Your task to perform on an android device: Go to display settings Image 0: 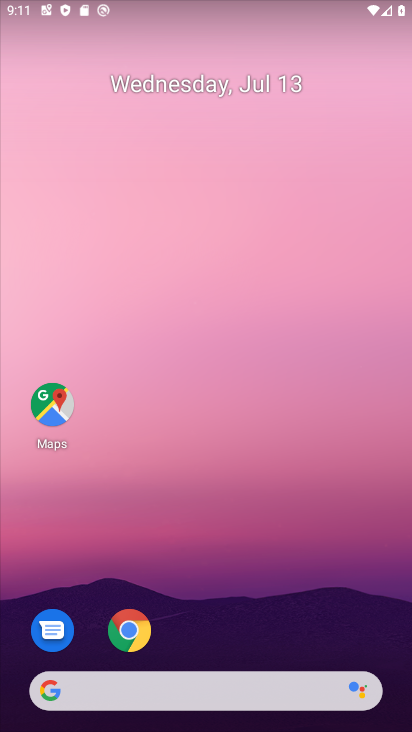
Step 0: drag from (227, 572) to (264, 0)
Your task to perform on an android device: Go to display settings Image 1: 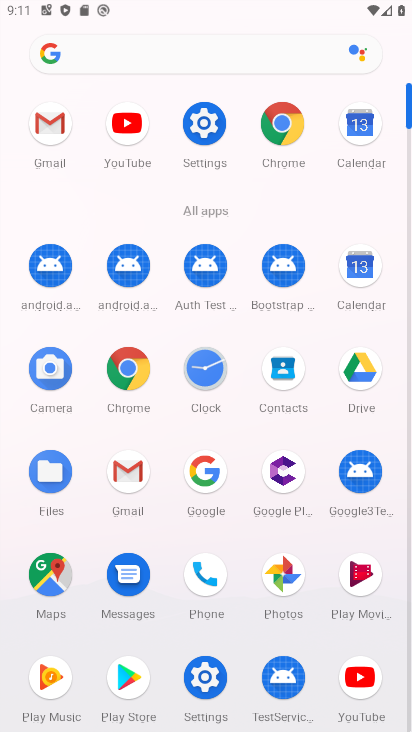
Step 1: click (201, 131)
Your task to perform on an android device: Go to display settings Image 2: 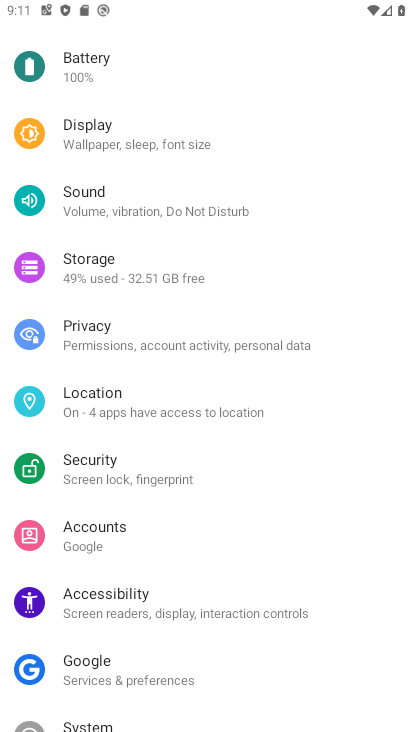
Step 2: click (100, 134)
Your task to perform on an android device: Go to display settings Image 3: 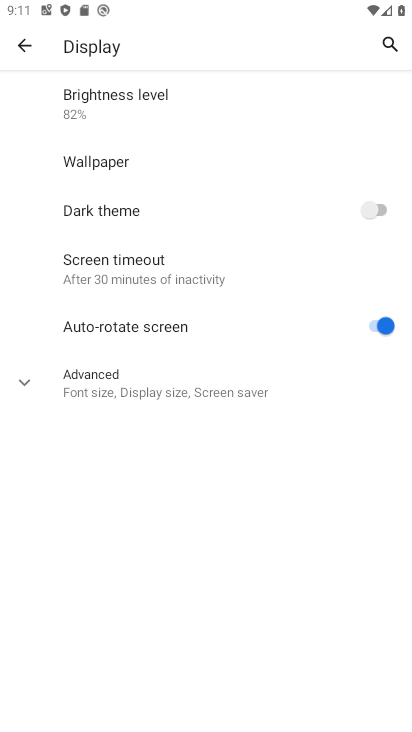
Step 3: task complete